Your task to perform on an android device: turn on the 12-hour format for clock Image 0: 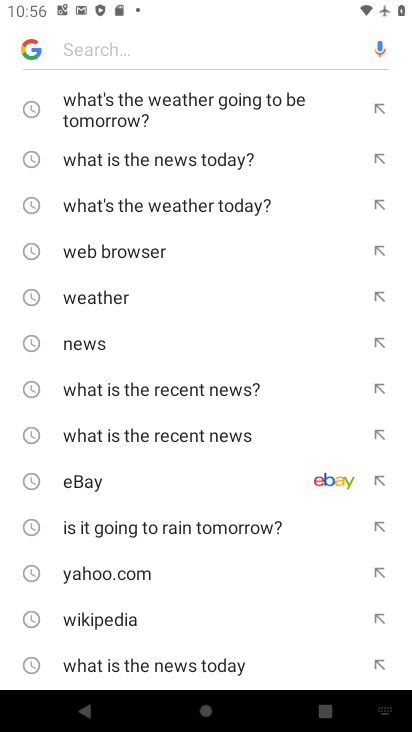
Step 0: press home button
Your task to perform on an android device: turn on the 12-hour format for clock Image 1: 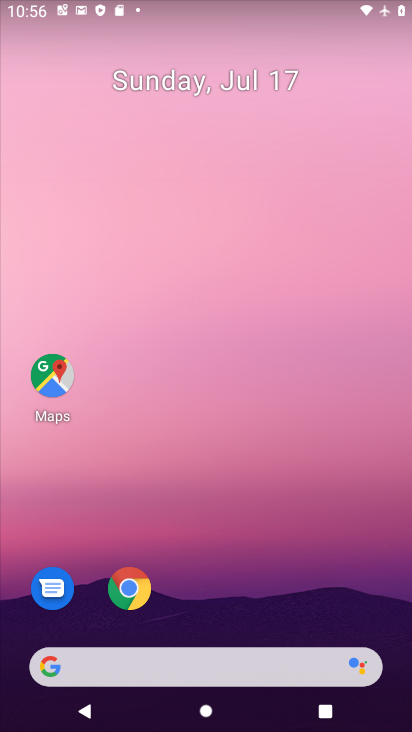
Step 1: drag from (215, 506) to (217, 27)
Your task to perform on an android device: turn on the 12-hour format for clock Image 2: 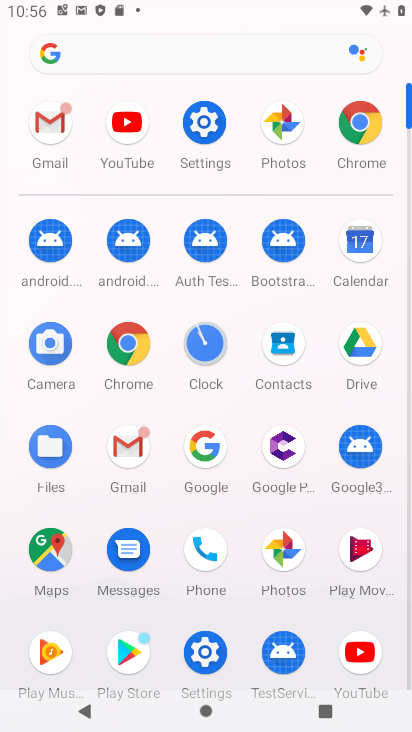
Step 2: click (182, 661)
Your task to perform on an android device: turn on the 12-hour format for clock Image 3: 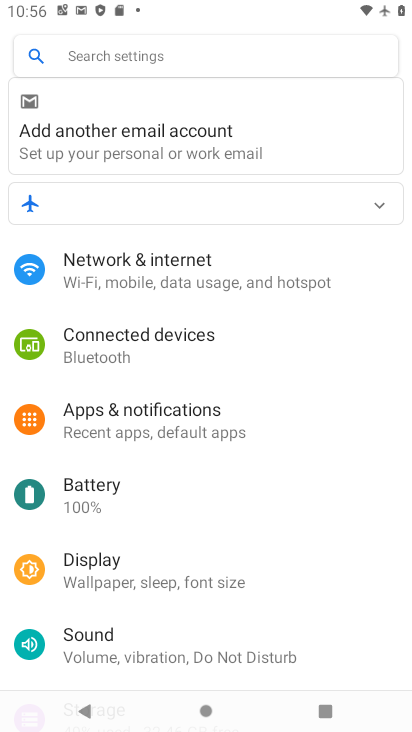
Step 3: drag from (117, 508) to (141, 250)
Your task to perform on an android device: turn on the 12-hour format for clock Image 4: 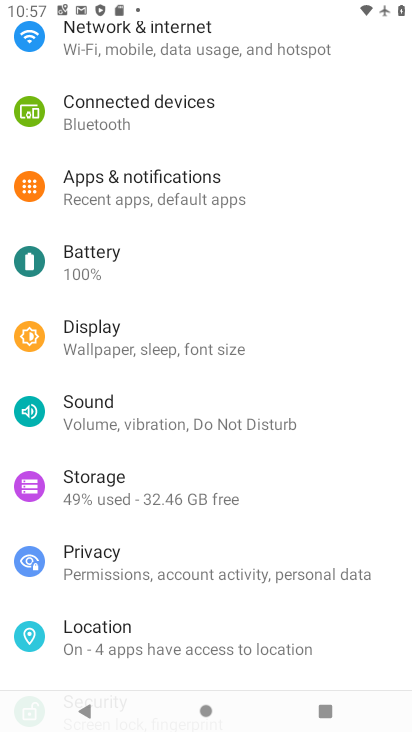
Step 4: press home button
Your task to perform on an android device: turn on the 12-hour format for clock Image 5: 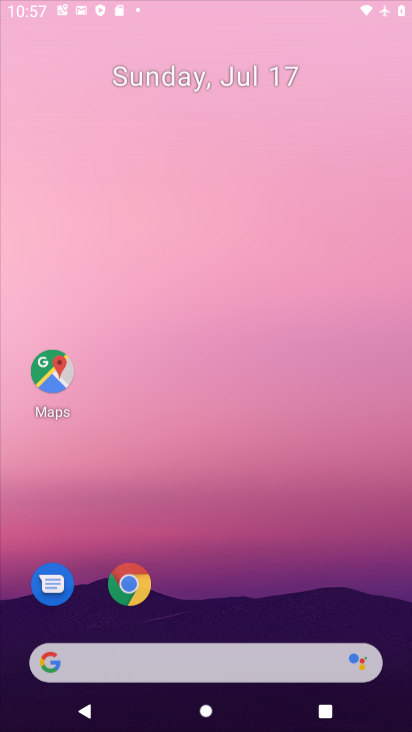
Step 5: drag from (159, 707) to (299, 154)
Your task to perform on an android device: turn on the 12-hour format for clock Image 6: 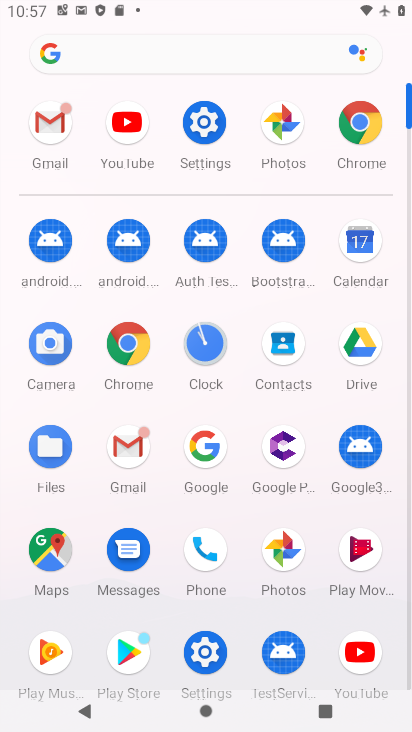
Step 6: click (226, 326)
Your task to perform on an android device: turn on the 12-hour format for clock Image 7: 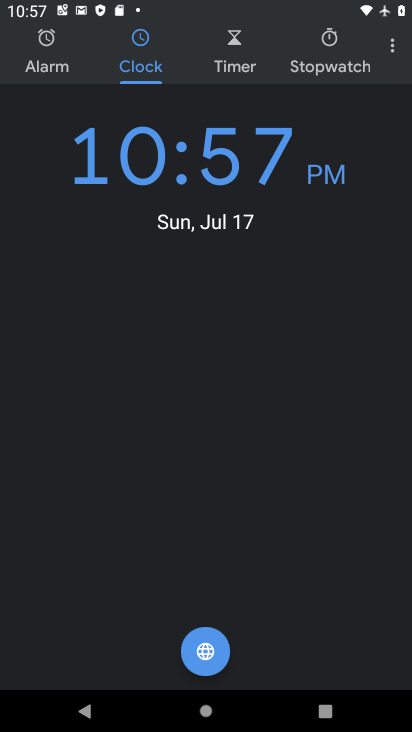
Step 7: click (394, 43)
Your task to perform on an android device: turn on the 12-hour format for clock Image 8: 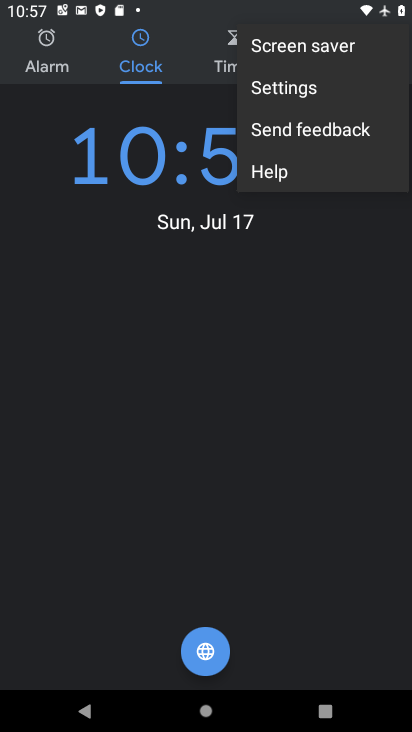
Step 8: click (284, 94)
Your task to perform on an android device: turn on the 12-hour format for clock Image 9: 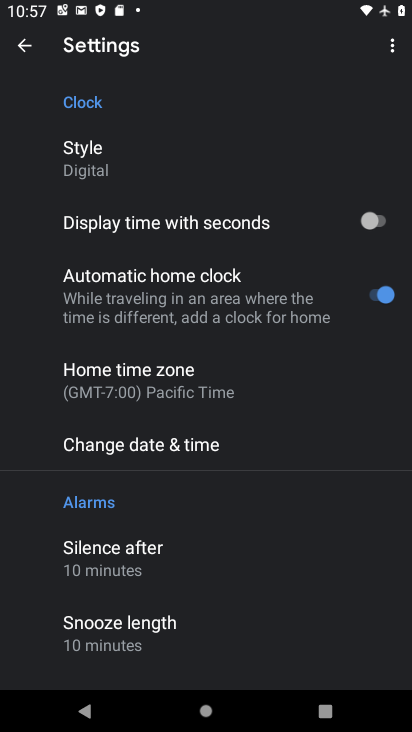
Step 9: click (165, 457)
Your task to perform on an android device: turn on the 12-hour format for clock Image 10: 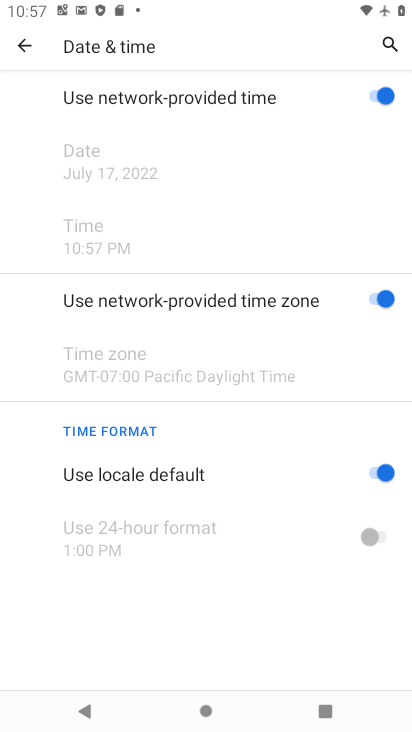
Step 10: click (167, 472)
Your task to perform on an android device: turn on the 12-hour format for clock Image 11: 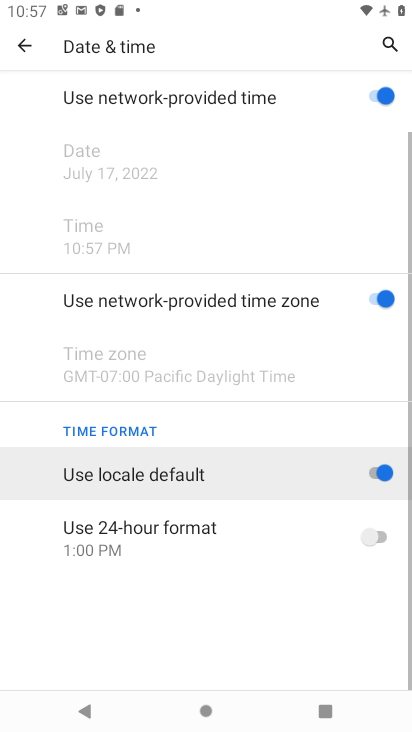
Step 11: click (186, 517)
Your task to perform on an android device: turn on the 12-hour format for clock Image 12: 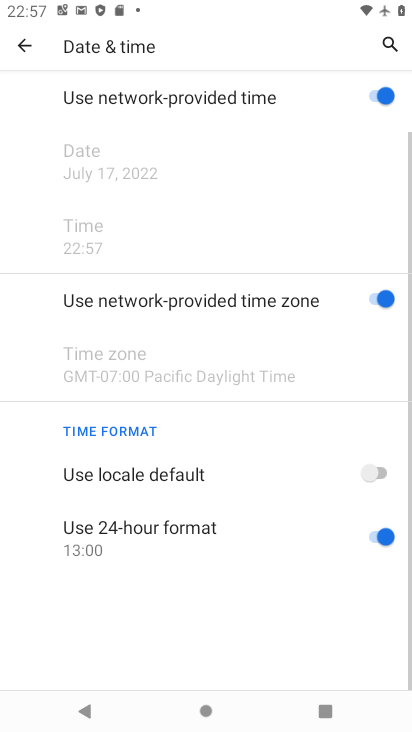
Step 12: task complete